Your task to perform on an android device: Go to Maps Image 0: 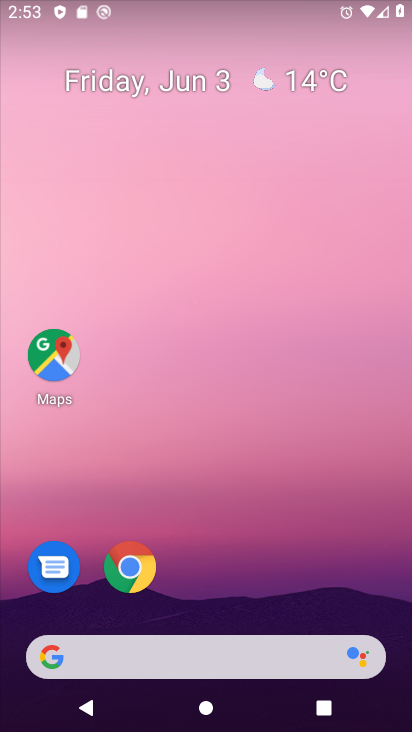
Step 0: click (306, 108)
Your task to perform on an android device: Go to Maps Image 1: 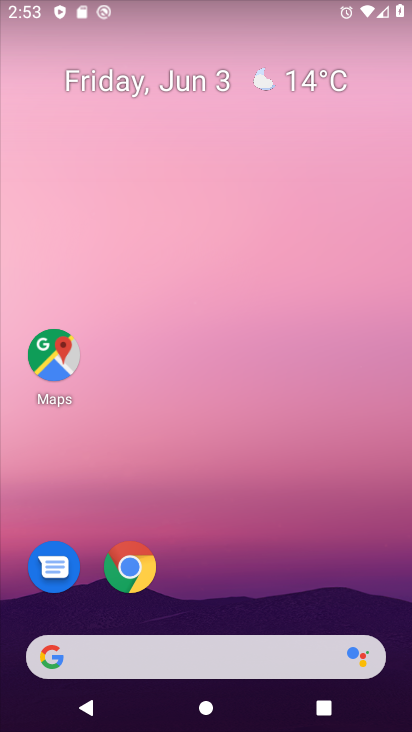
Step 1: drag from (185, 648) to (284, 119)
Your task to perform on an android device: Go to Maps Image 2: 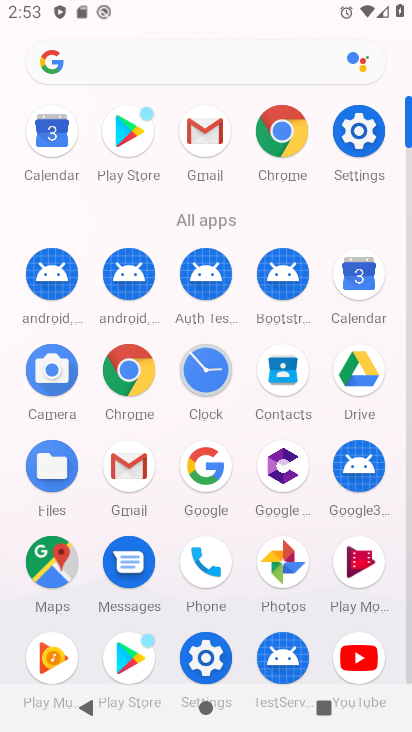
Step 2: click (52, 541)
Your task to perform on an android device: Go to Maps Image 3: 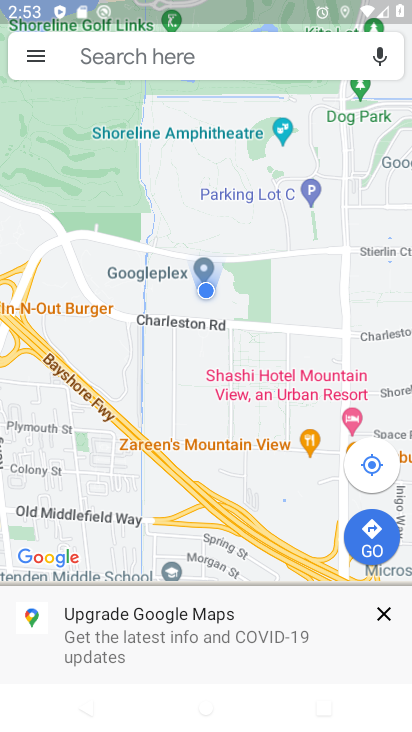
Step 3: task complete